Your task to perform on an android device: Go to internet settings Image 0: 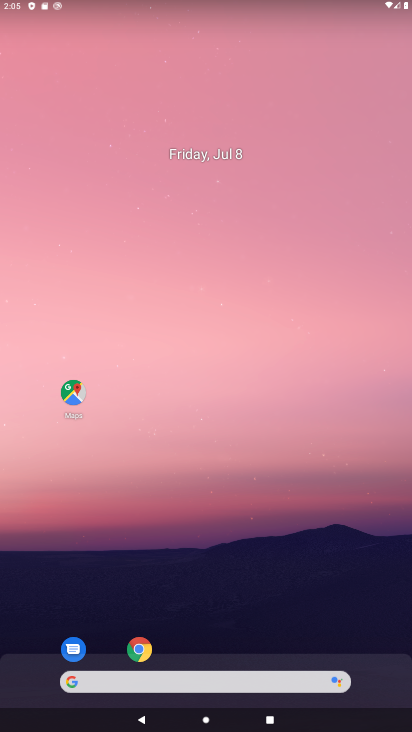
Step 0: drag from (340, 599) to (273, 35)
Your task to perform on an android device: Go to internet settings Image 1: 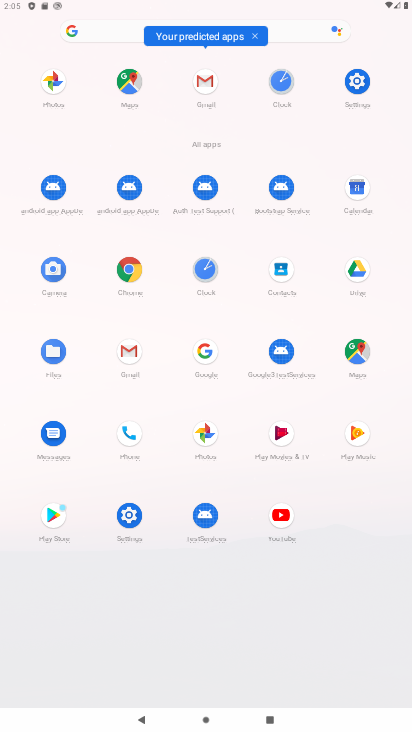
Step 1: click (361, 75)
Your task to perform on an android device: Go to internet settings Image 2: 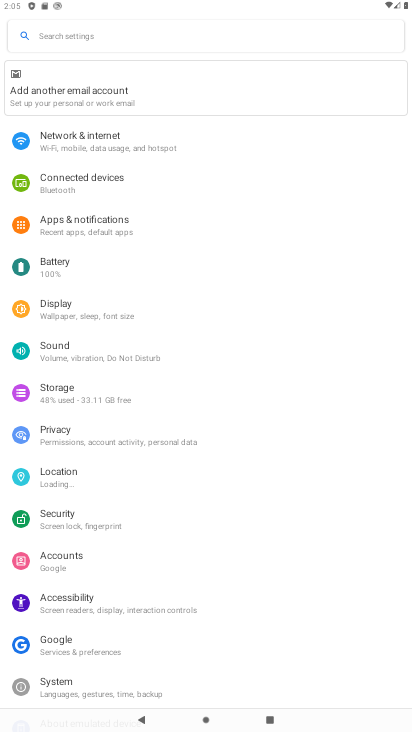
Step 2: click (88, 148)
Your task to perform on an android device: Go to internet settings Image 3: 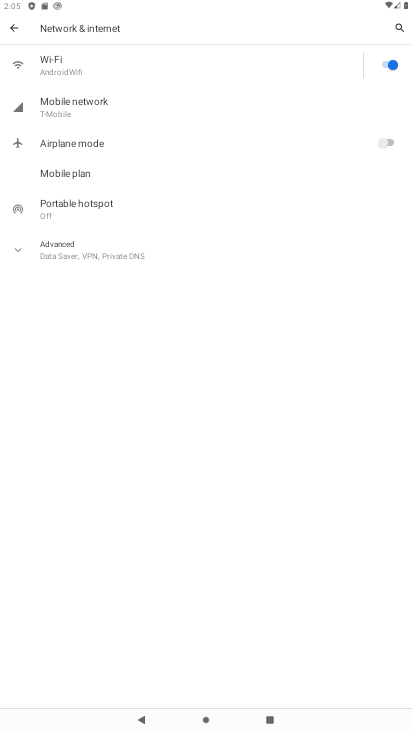
Step 3: click (69, 250)
Your task to perform on an android device: Go to internet settings Image 4: 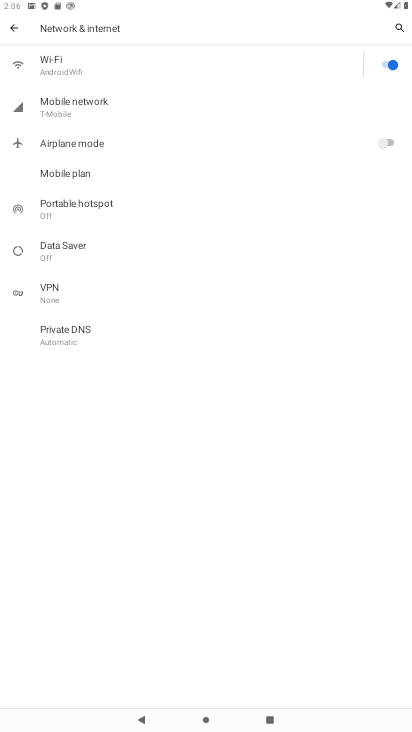
Step 4: task complete